Your task to perform on an android device: Open Youtube and go to the subscriptions tab Image 0: 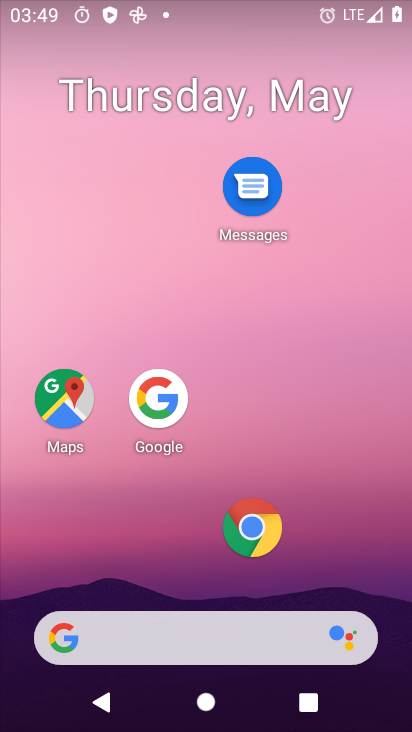
Step 0: drag from (200, 593) to (160, 113)
Your task to perform on an android device: Open Youtube and go to the subscriptions tab Image 1: 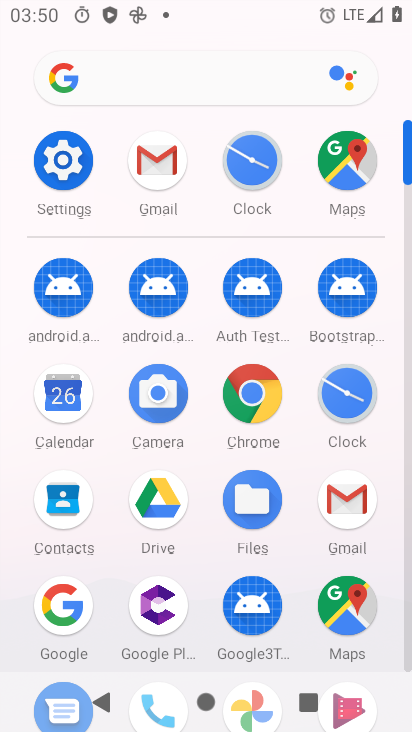
Step 1: drag from (197, 589) to (268, 182)
Your task to perform on an android device: Open Youtube and go to the subscriptions tab Image 2: 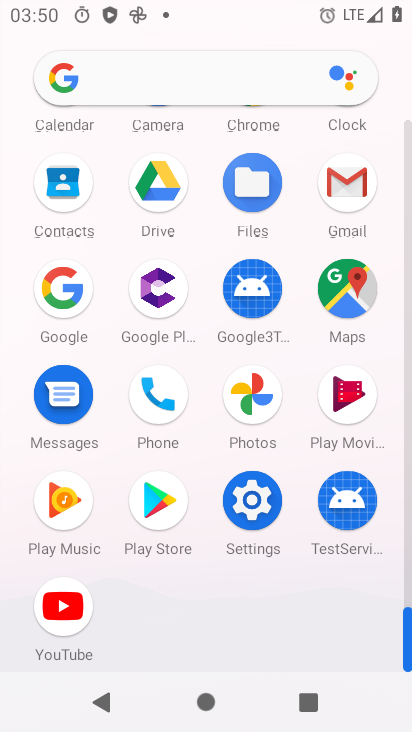
Step 2: click (63, 597)
Your task to perform on an android device: Open Youtube and go to the subscriptions tab Image 3: 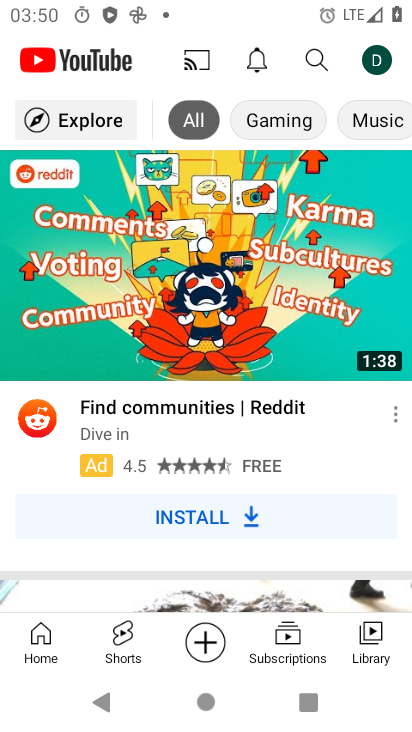
Step 3: click (293, 631)
Your task to perform on an android device: Open Youtube and go to the subscriptions tab Image 4: 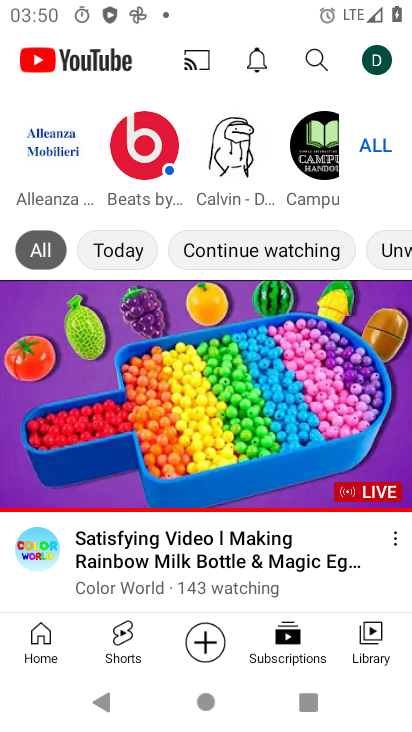
Step 4: task complete